Your task to perform on an android device: delete the emails in spam in the gmail app Image 0: 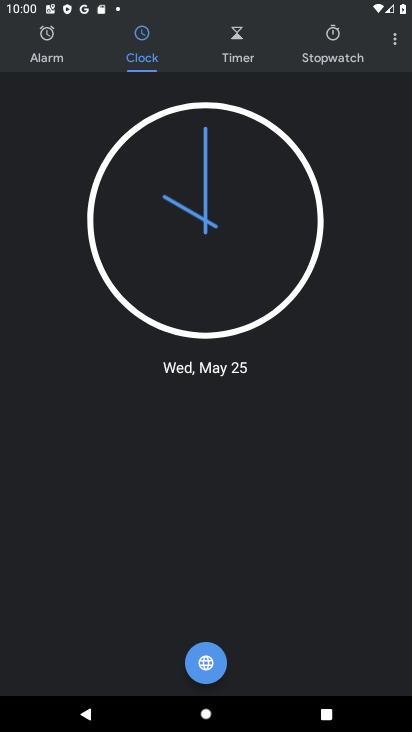
Step 0: press home button
Your task to perform on an android device: delete the emails in spam in the gmail app Image 1: 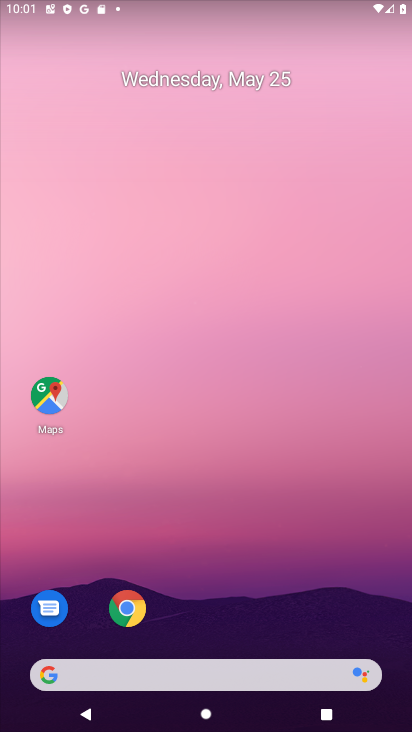
Step 1: drag from (282, 650) to (274, 20)
Your task to perform on an android device: delete the emails in spam in the gmail app Image 2: 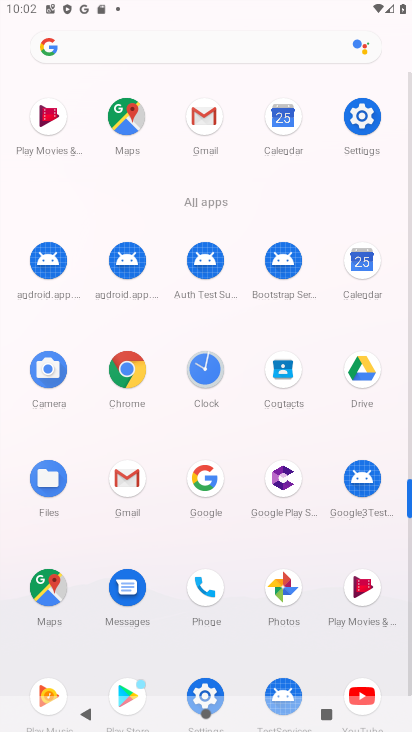
Step 2: click (201, 117)
Your task to perform on an android device: delete the emails in spam in the gmail app Image 3: 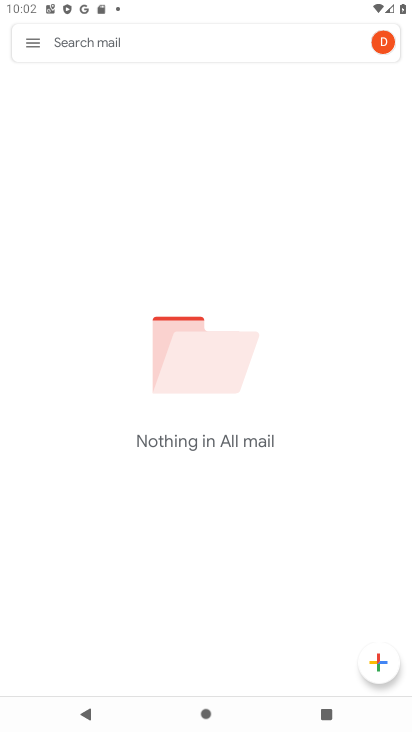
Step 3: click (41, 44)
Your task to perform on an android device: delete the emails in spam in the gmail app Image 4: 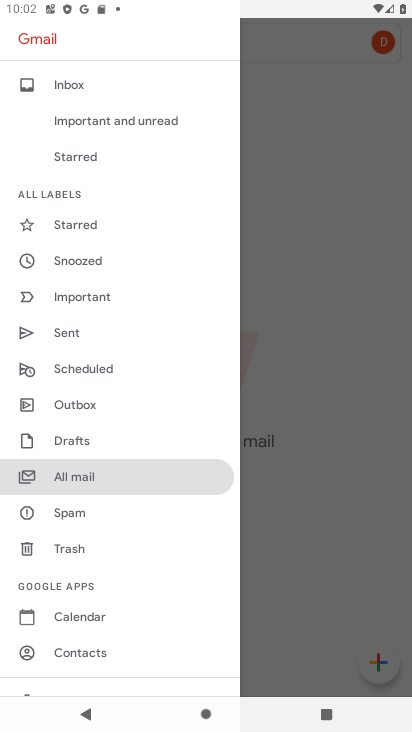
Step 4: click (66, 514)
Your task to perform on an android device: delete the emails in spam in the gmail app Image 5: 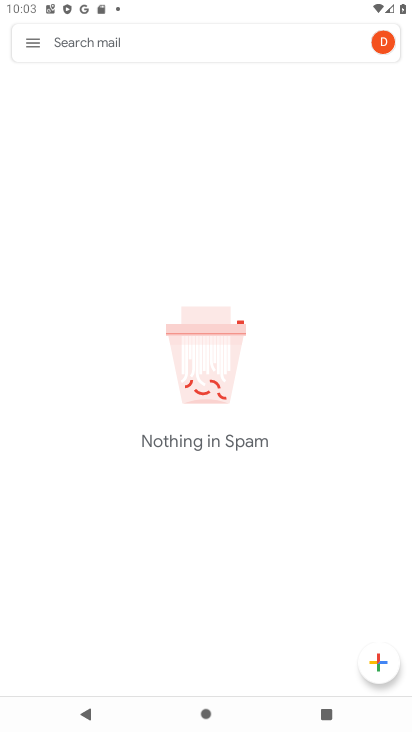
Step 5: task complete